Your task to perform on an android device: See recent photos Image 0: 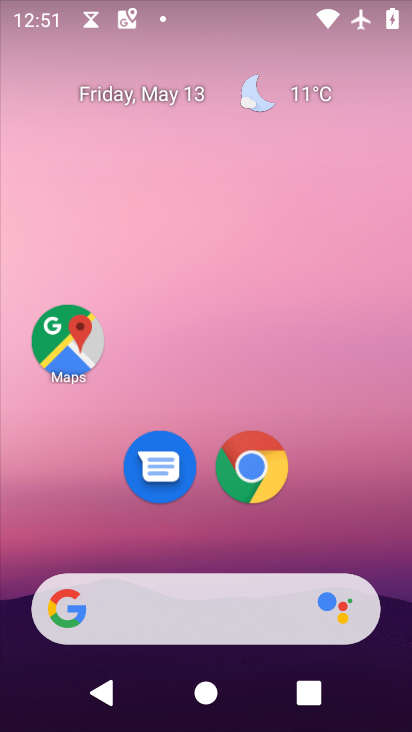
Step 0: drag from (335, 469) to (235, 25)
Your task to perform on an android device: See recent photos Image 1: 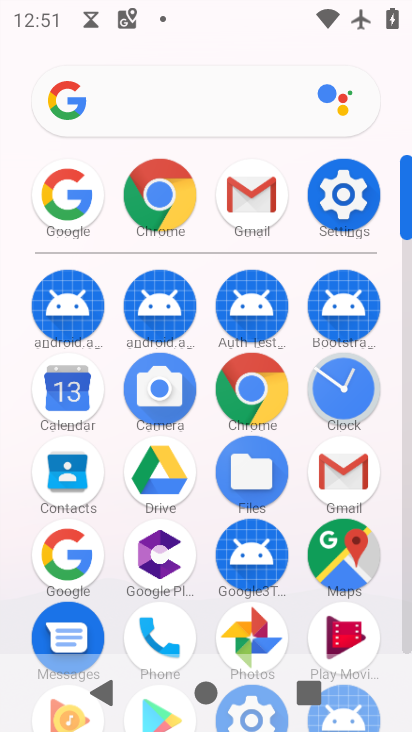
Step 1: click (242, 619)
Your task to perform on an android device: See recent photos Image 2: 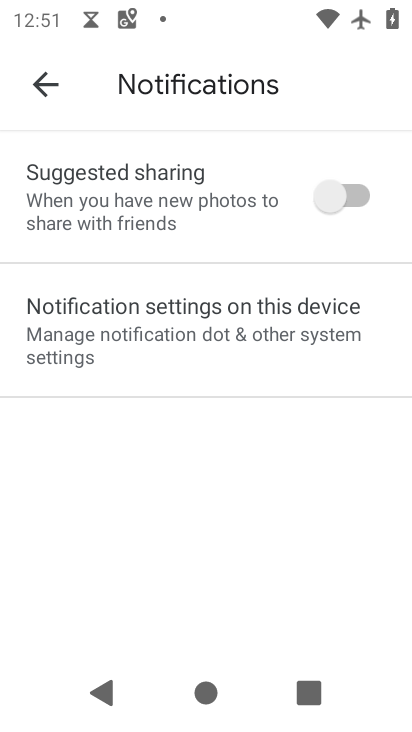
Step 2: click (42, 81)
Your task to perform on an android device: See recent photos Image 3: 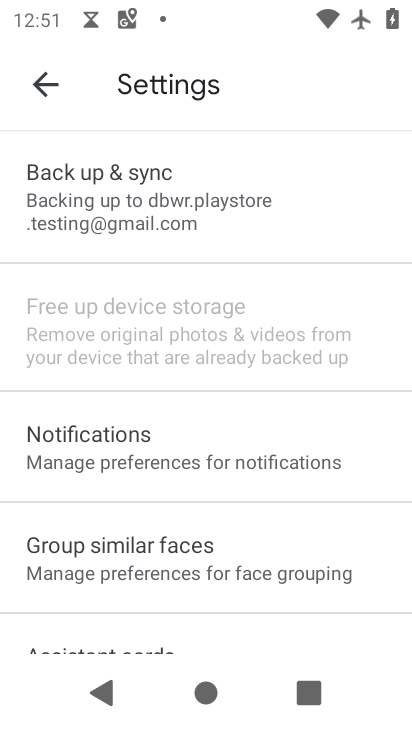
Step 3: click (40, 71)
Your task to perform on an android device: See recent photos Image 4: 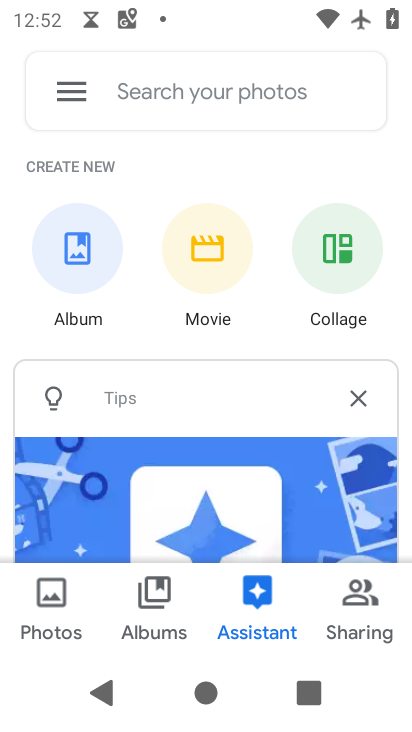
Step 4: click (181, 97)
Your task to perform on an android device: See recent photos Image 5: 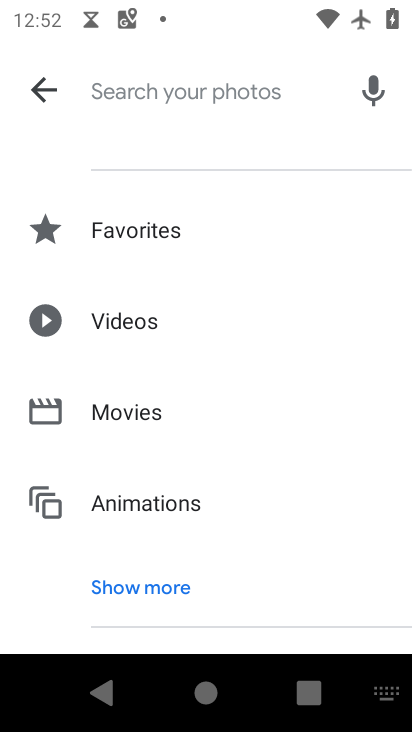
Step 5: type "recent"
Your task to perform on an android device: See recent photos Image 6: 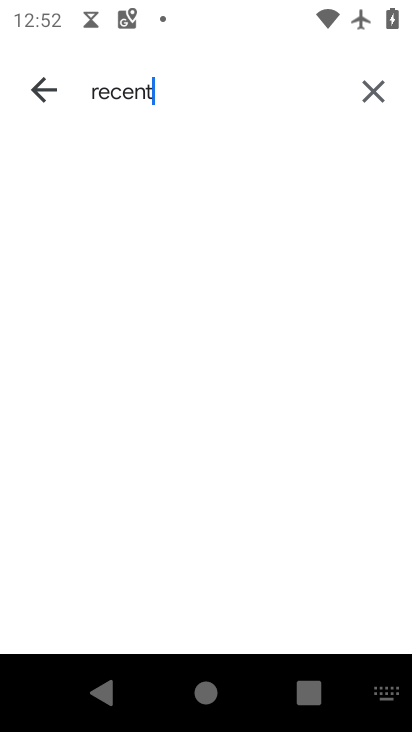
Step 6: type ""
Your task to perform on an android device: See recent photos Image 7: 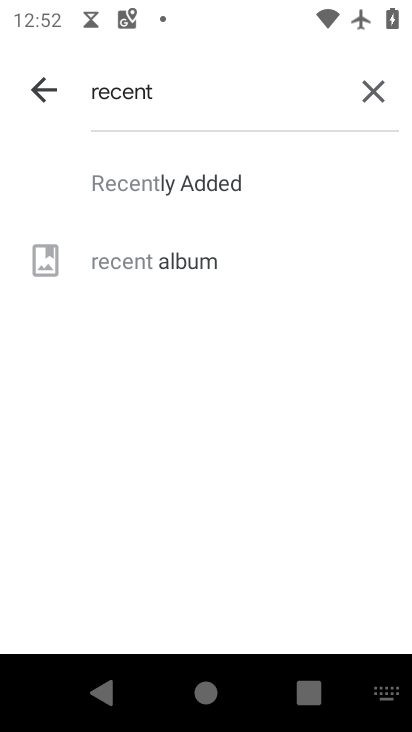
Step 7: click (152, 187)
Your task to perform on an android device: See recent photos Image 8: 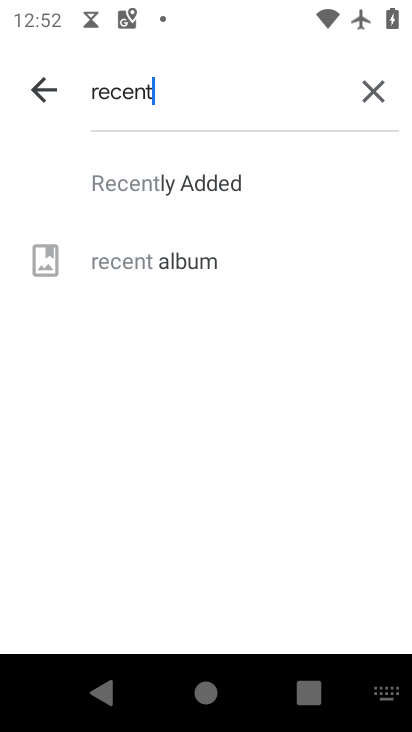
Step 8: click (148, 268)
Your task to perform on an android device: See recent photos Image 9: 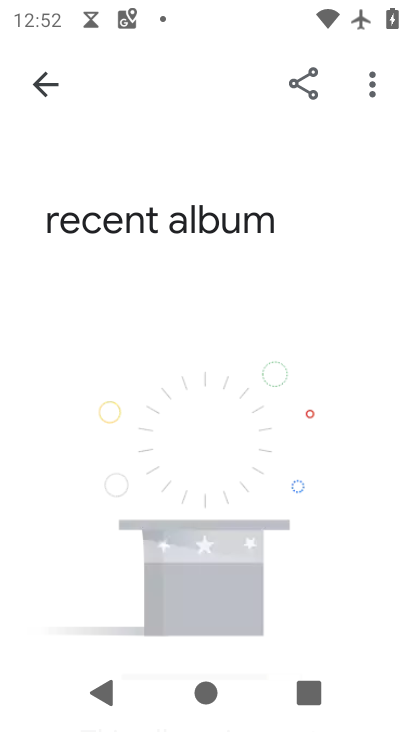
Step 9: task complete